Your task to perform on an android device: delete a single message in the gmail app Image 0: 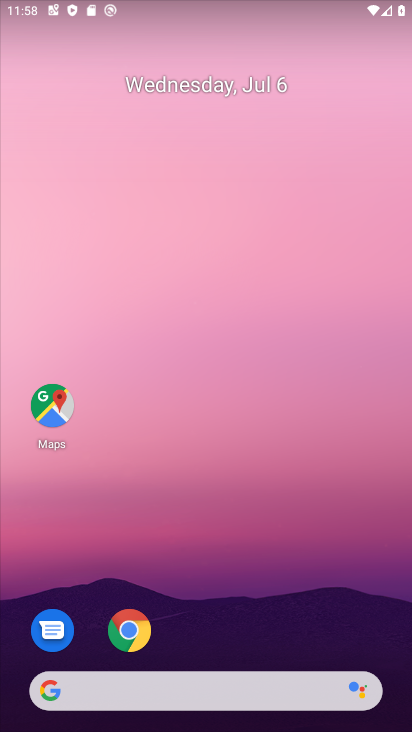
Step 0: drag from (189, 539) to (175, 102)
Your task to perform on an android device: delete a single message in the gmail app Image 1: 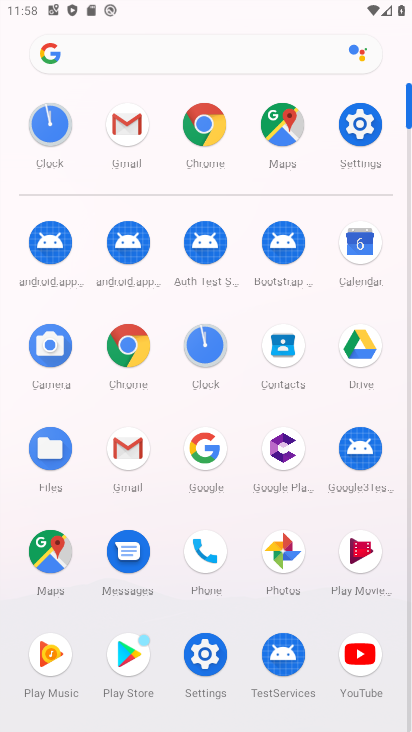
Step 1: click (130, 458)
Your task to perform on an android device: delete a single message in the gmail app Image 2: 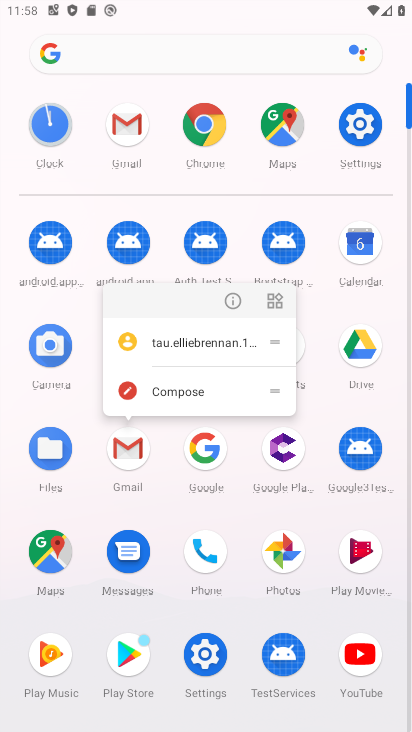
Step 2: click (126, 444)
Your task to perform on an android device: delete a single message in the gmail app Image 3: 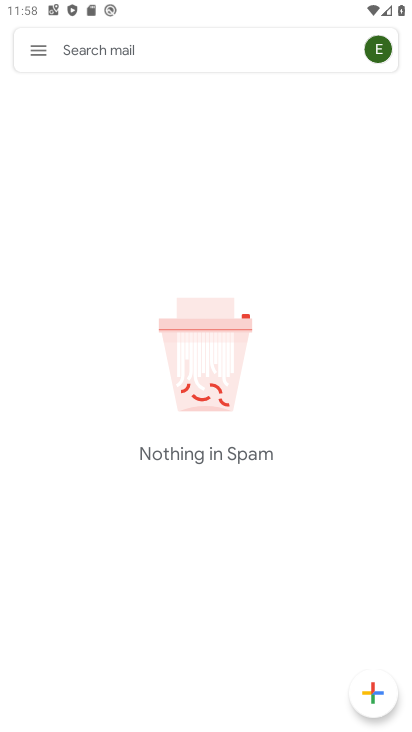
Step 3: click (36, 44)
Your task to perform on an android device: delete a single message in the gmail app Image 4: 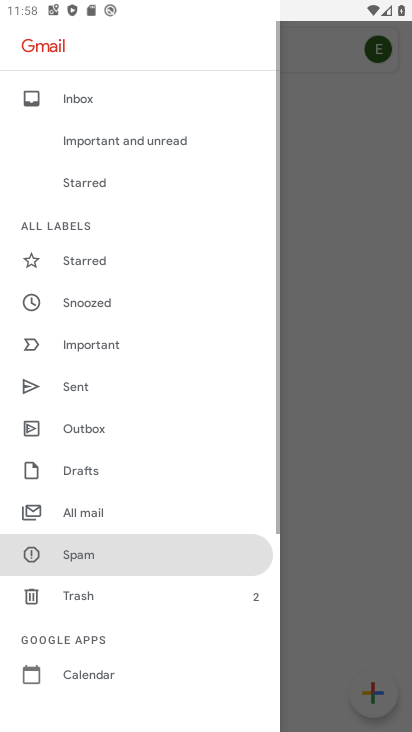
Step 4: drag from (96, 128) to (101, 279)
Your task to perform on an android device: delete a single message in the gmail app Image 5: 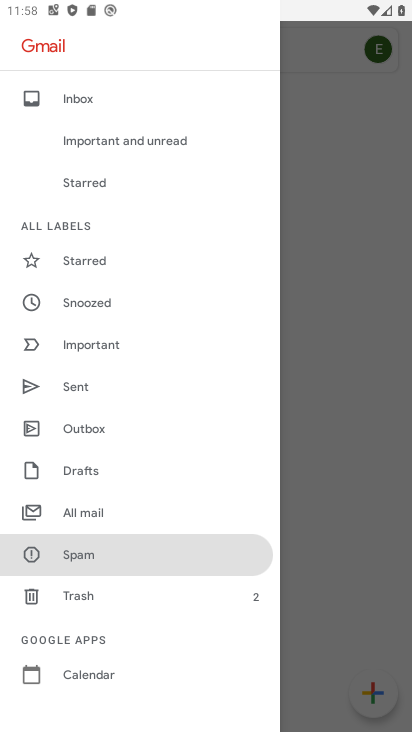
Step 5: click (80, 94)
Your task to perform on an android device: delete a single message in the gmail app Image 6: 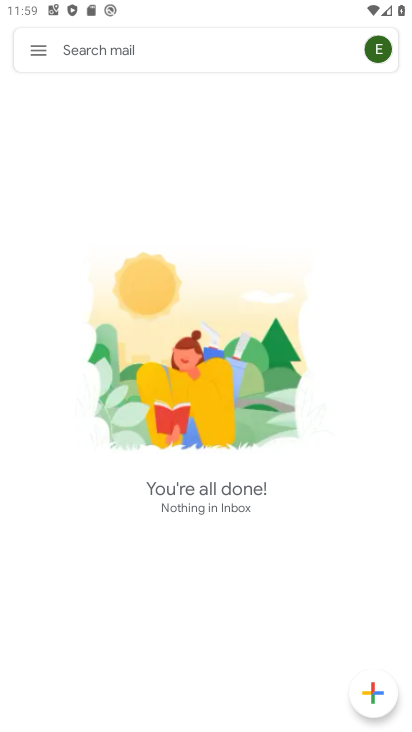
Step 6: task complete